Your task to perform on an android device: delete the emails in spam in the gmail app Image 0: 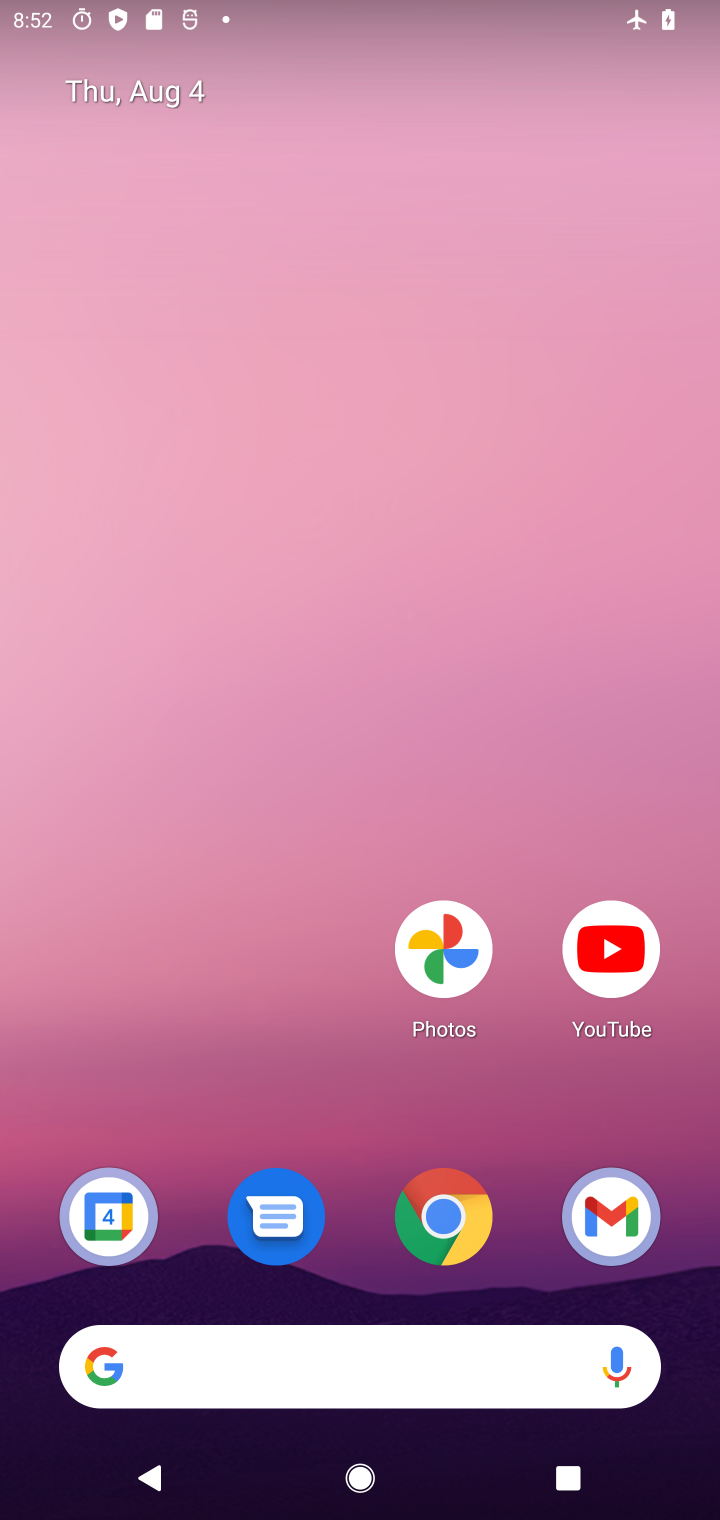
Step 0: drag from (363, 1158) to (353, 144)
Your task to perform on an android device: delete the emails in spam in the gmail app Image 1: 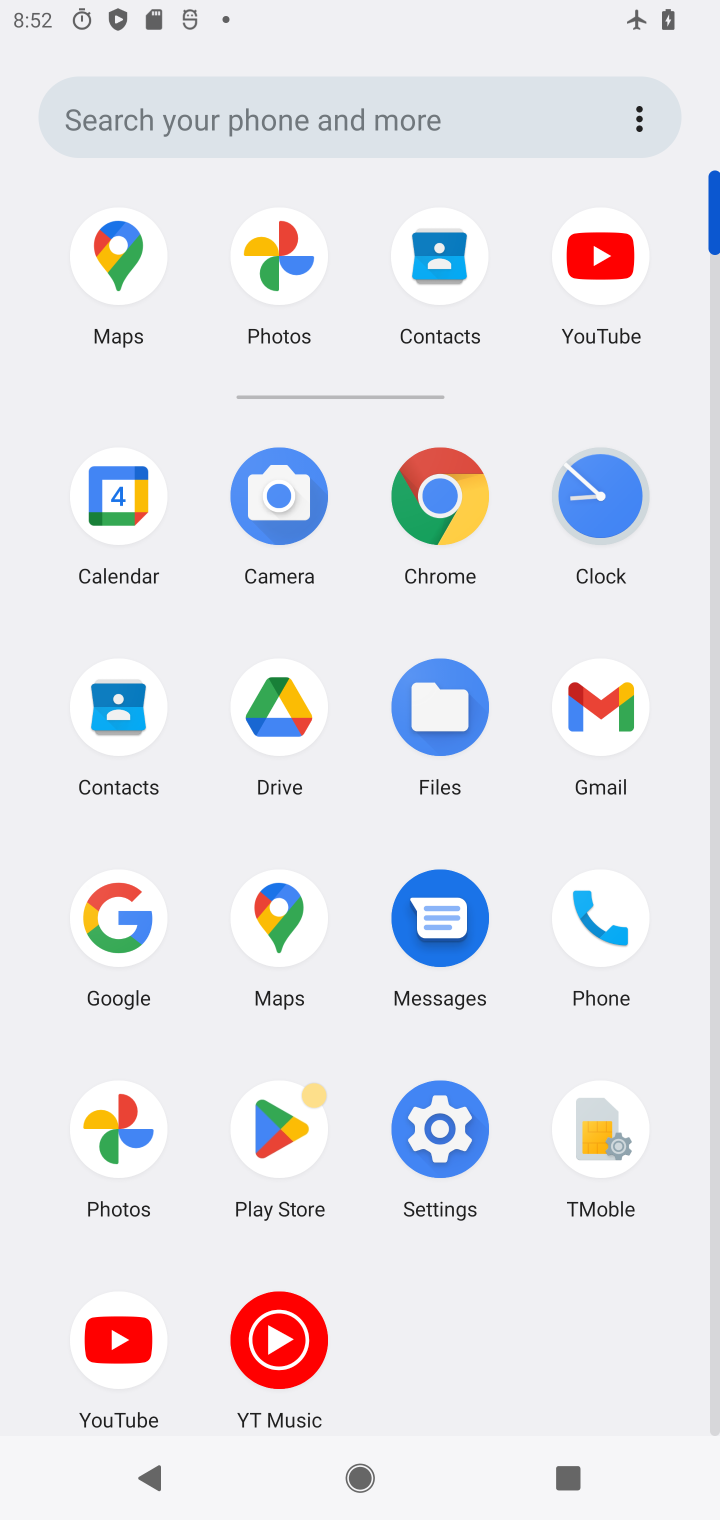
Step 1: click (585, 710)
Your task to perform on an android device: delete the emails in spam in the gmail app Image 2: 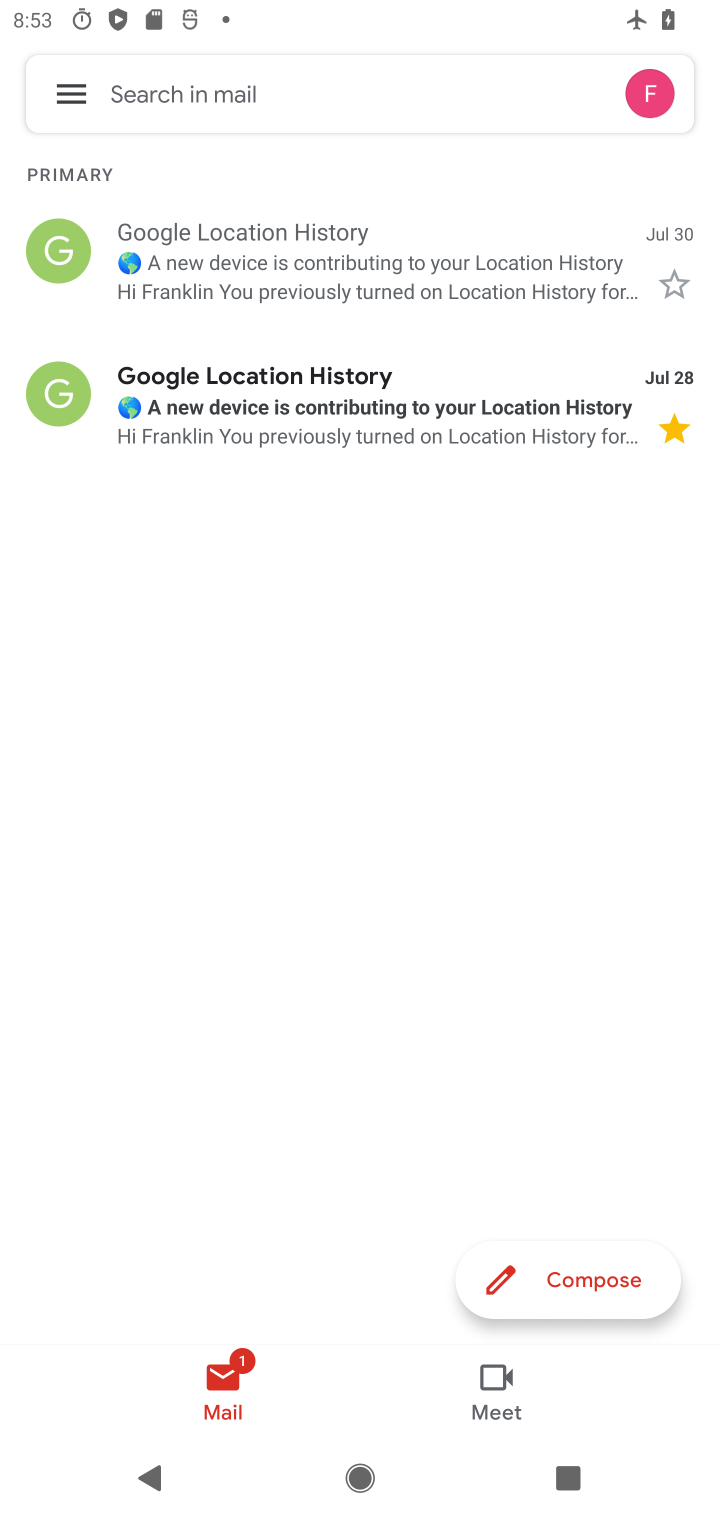
Step 2: task complete